Your task to perform on an android device: change notification settings in the gmail app Image 0: 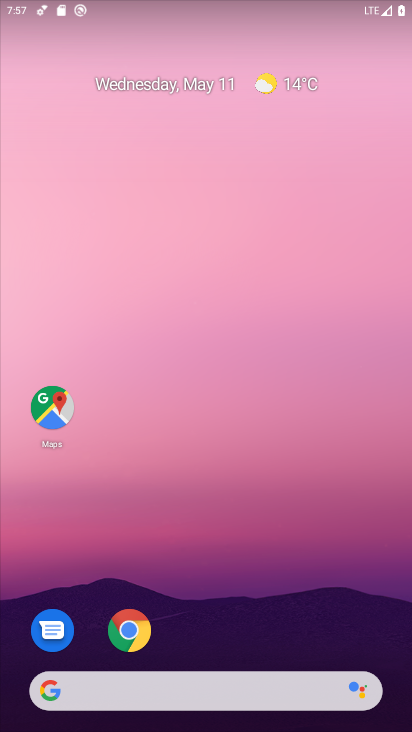
Step 0: drag from (25, 675) to (238, 133)
Your task to perform on an android device: change notification settings in the gmail app Image 1: 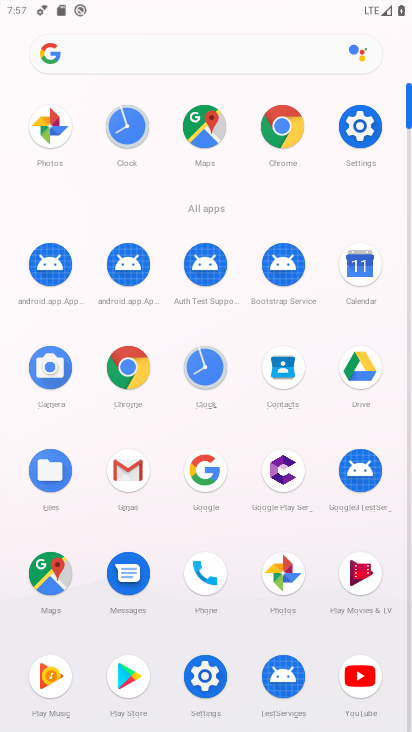
Step 1: click (131, 465)
Your task to perform on an android device: change notification settings in the gmail app Image 2: 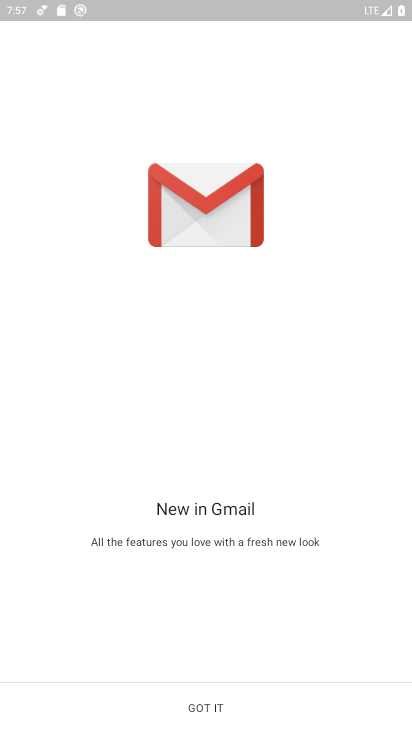
Step 2: click (220, 698)
Your task to perform on an android device: change notification settings in the gmail app Image 3: 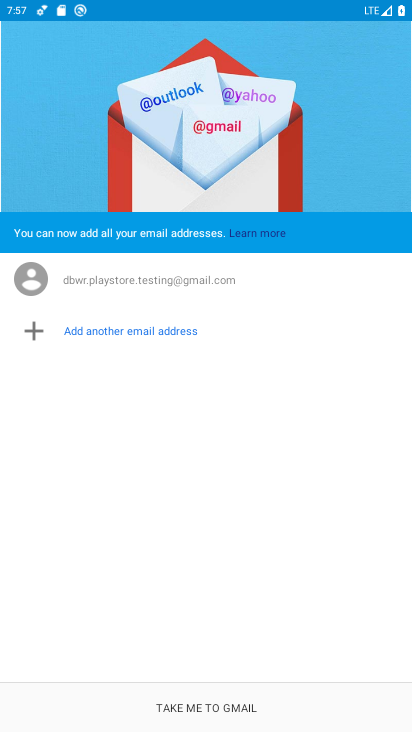
Step 3: click (219, 698)
Your task to perform on an android device: change notification settings in the gmail app Image 4: 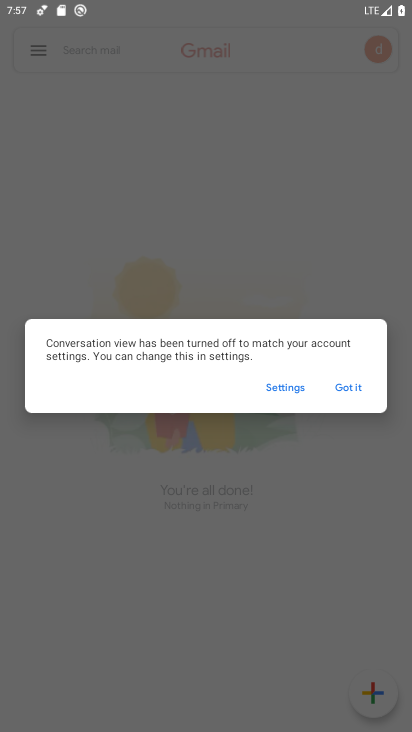
Step 4: click (352, 385)
Your task to perform on an android device: change notification settings in the gmail app Image 5: 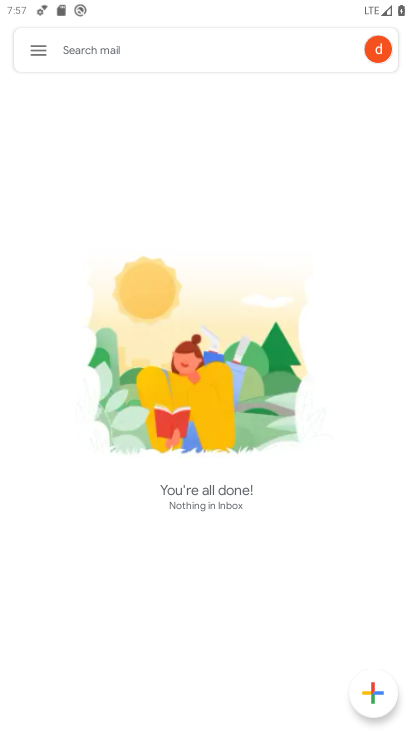
Step 5: click (38, 48)
Your task to perform on an android device: change notification settings in the gmail app Image 6: 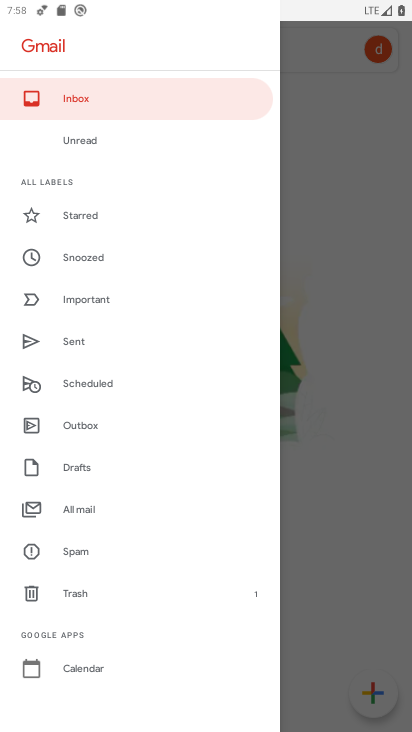
Step 6: drag from (87, 678) to (124, 191)
Your task to perform on an android device: change notification settings in the gmail app Image 7: 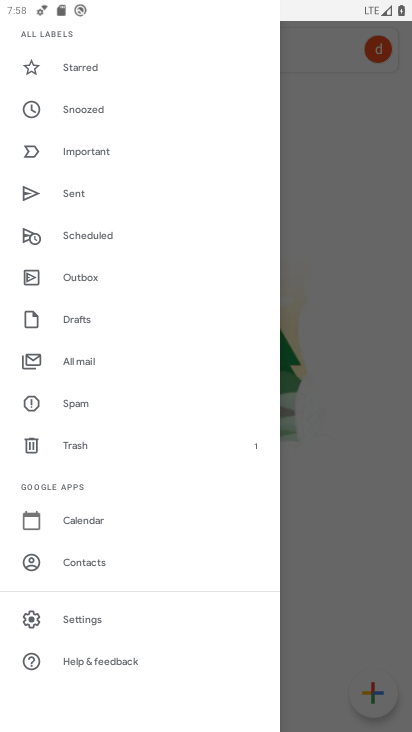
Step 7: click (119, 610)
Your task to perform on an android device: change notification settings in the gmail app Image 8: 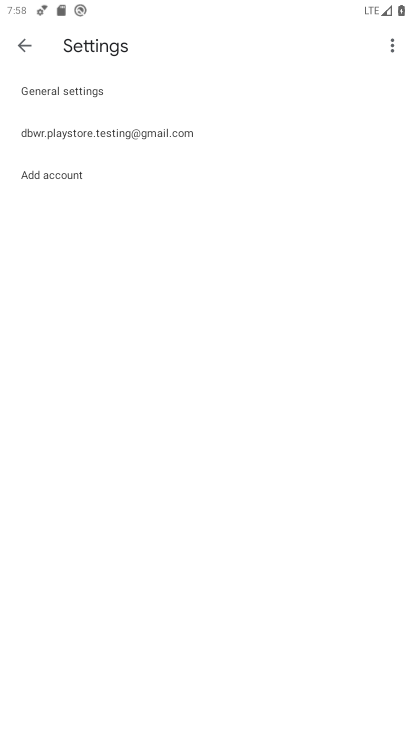
Step 8: click (137, 130)
Your task to perform on an android device: change notification settings in the gmail app Image 9: 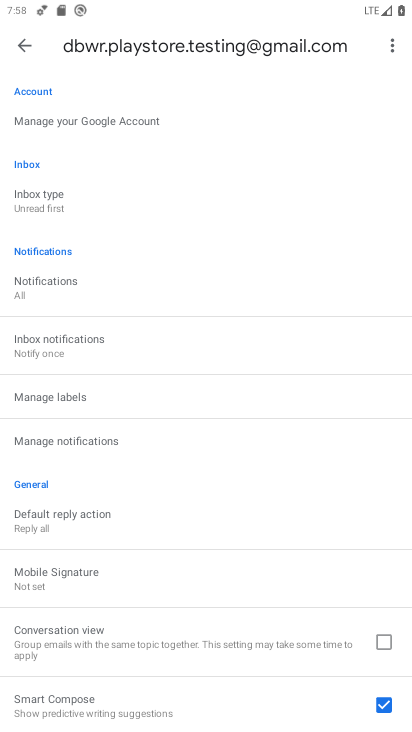
Step 9: click (85, 345)
Your task to perform on an android device: change notification settings in the gmail app Image 10: 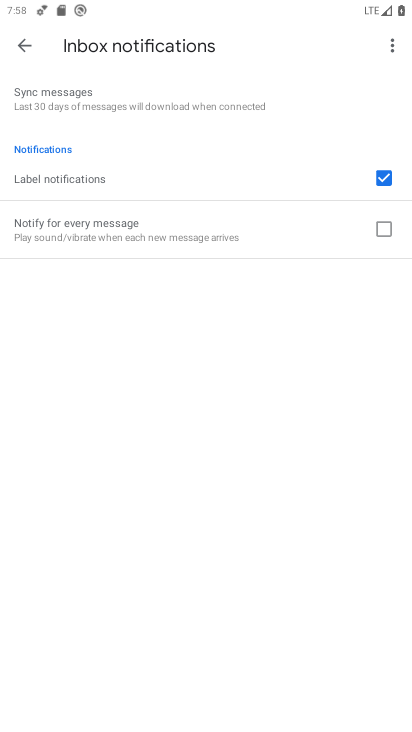
Step 10: press back button
Your task to perform on an android device: change notification settings in the gmail app Image 11: 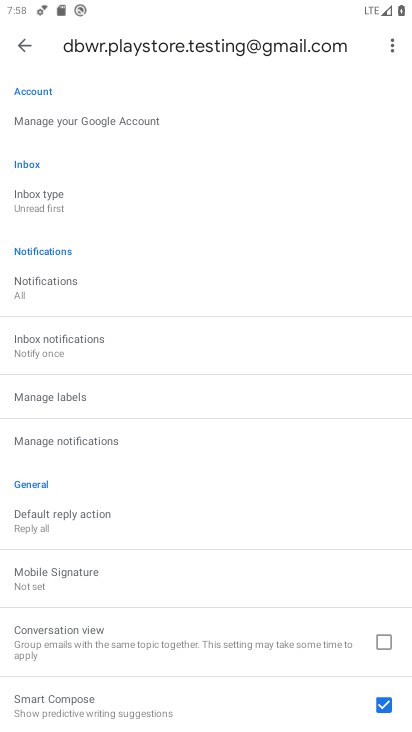
Step 11: click (102, 341)
Your task to perform on an android device: change notification settings in the gmail app Image 12: 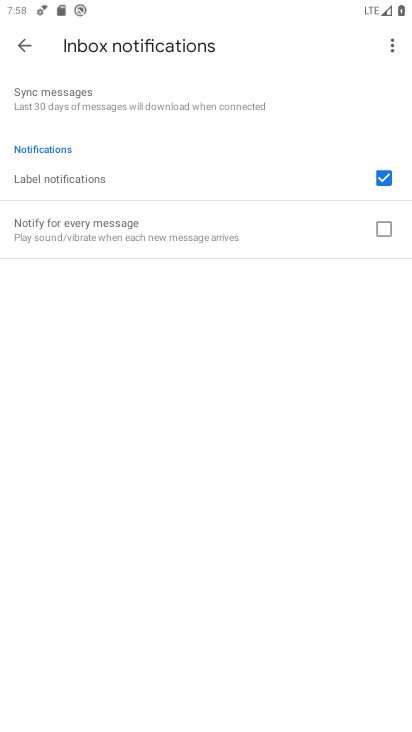
Step 12: press back button
Your task to perform on an android device: change notification settings in the gmail app Image 13: 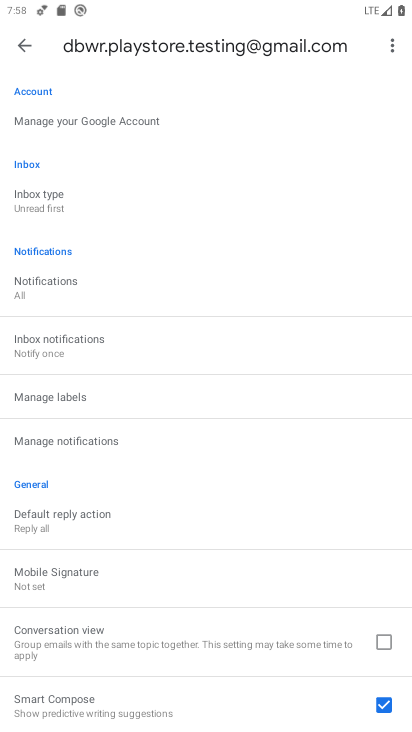
Step 13: click (88, 436)
Your task to perform on an android device: change notification settings in the gmail app Image 14: 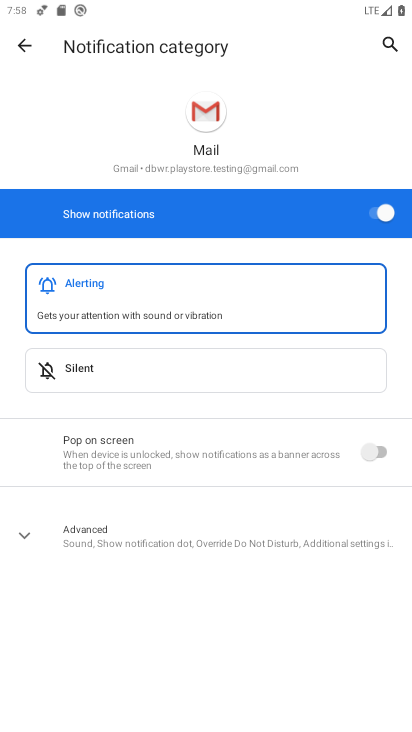
Step 14: click (390, 212)
Your task to perform on an android device: change notification settings in the gmail app Image 15: 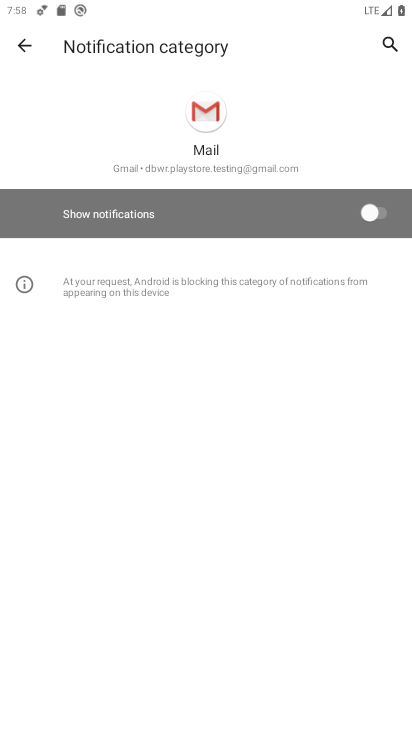
Step 15: task complete